Your task to perform on an android device: add a contact in the contacts app Image 0: 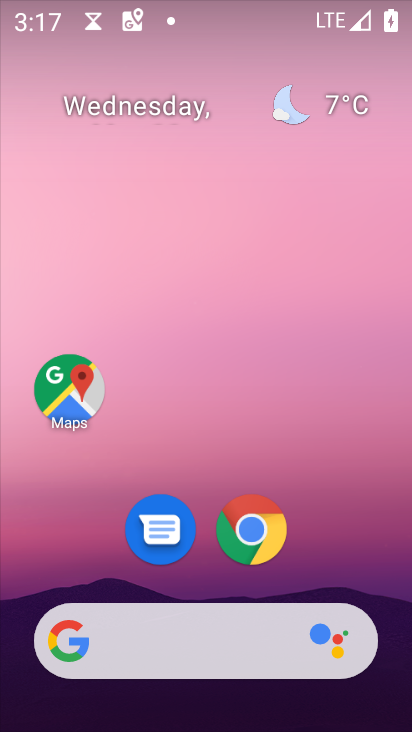
Step 0: drag from (337, 499) to (280, 0)
Your task to perform on an android device: add a contact in the contacts app Image 1: 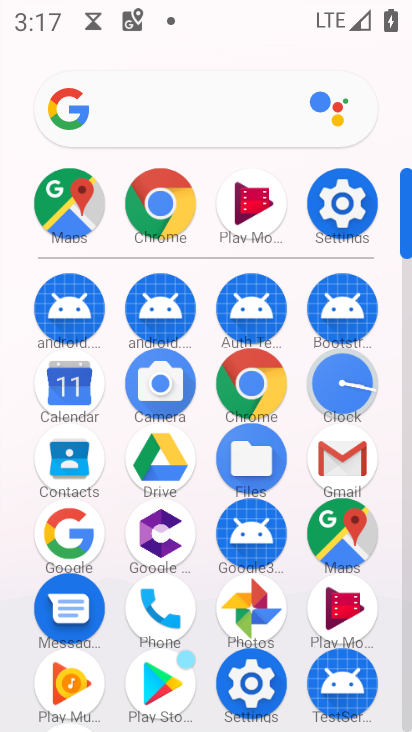
Step 1: drag from (399, 569) to (342, 173)
Your task to perform on an android device: add a contact in the contacts app Image 2: 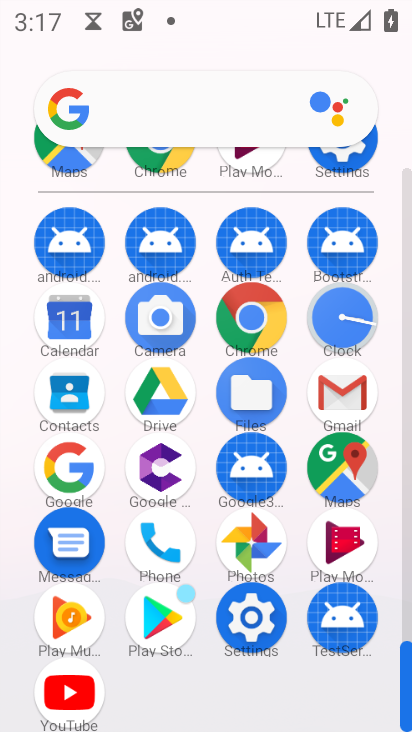
Step 2: click (166, 541)
Your task to perform on an android device: add a contact in the contacts app Image 3: 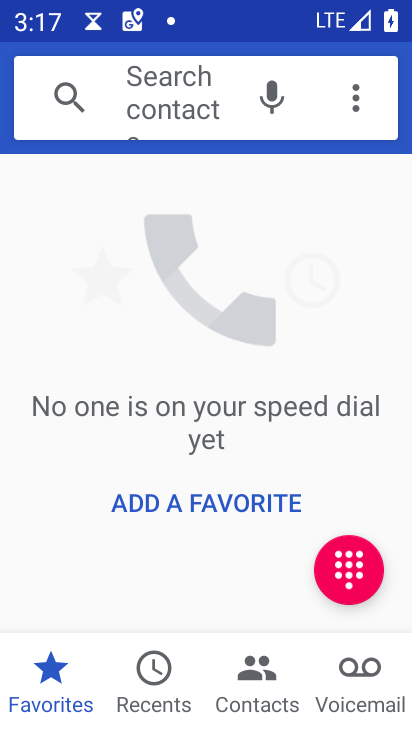
Step 3: click (260, 666)
Your task to perform on an android device: add a contact in the contacts app Image 4: 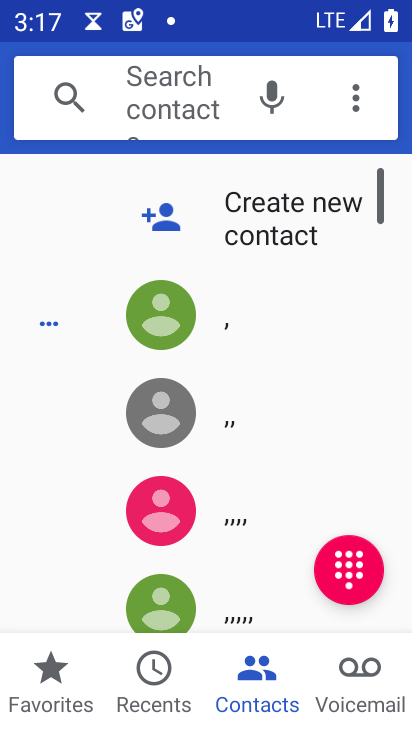
Step 4: click (258, 216)
Your task to perform on an android device: add a contact in the contacts app Image 5: 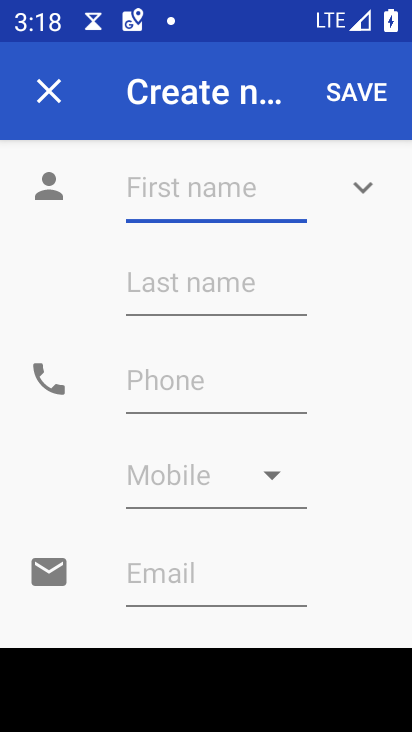
Step 5: type "ttry"
Your task to perform on an android device: add a contact in the contacts app Image 6: 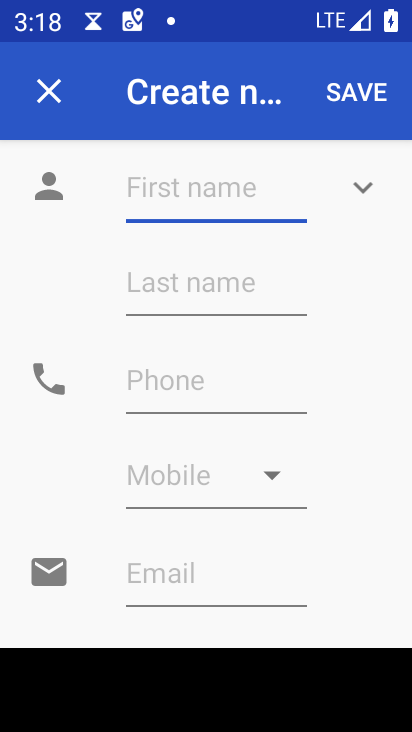
Step 6: click (164, 407)
Your task to perform on an android device: add a contact in the contacts app Image 7: 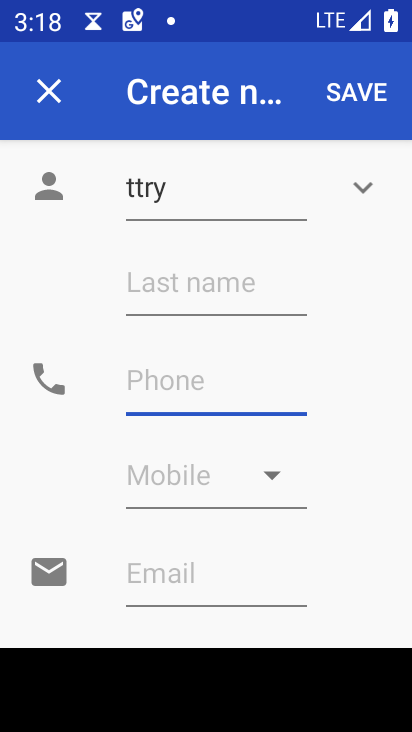
Step 7: type "567896765"
Your task to perform on an android device: add a contact in the contacts app Image 8: 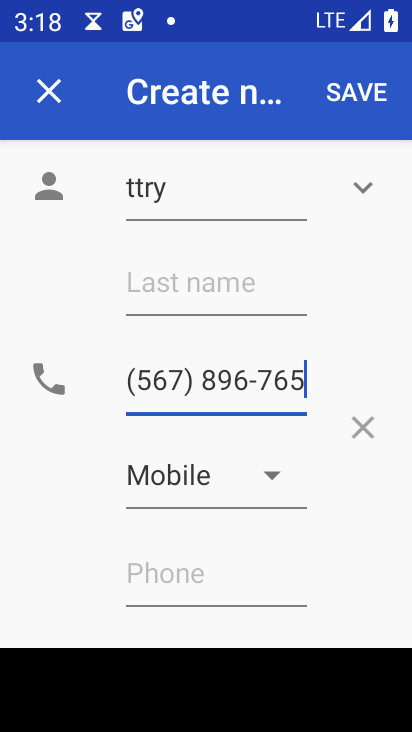
Step 8: click (356, 99)
Your task to perform on an android device: add a contact in the contacts app Image 9: 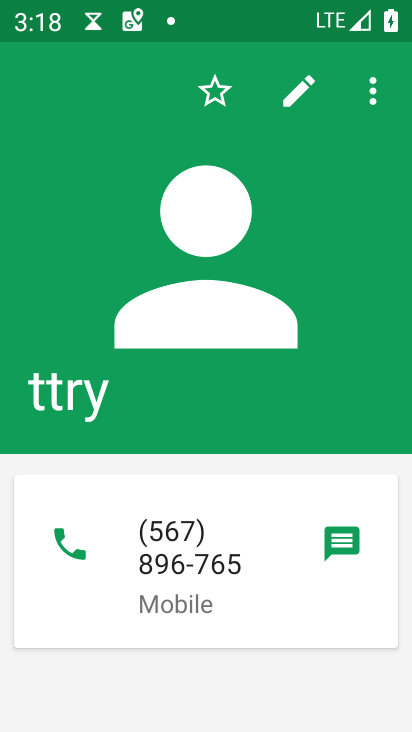
Step 9: task complete